Your task to perform on an android device: Search for seafood restaurants on Google Maps Image 0: 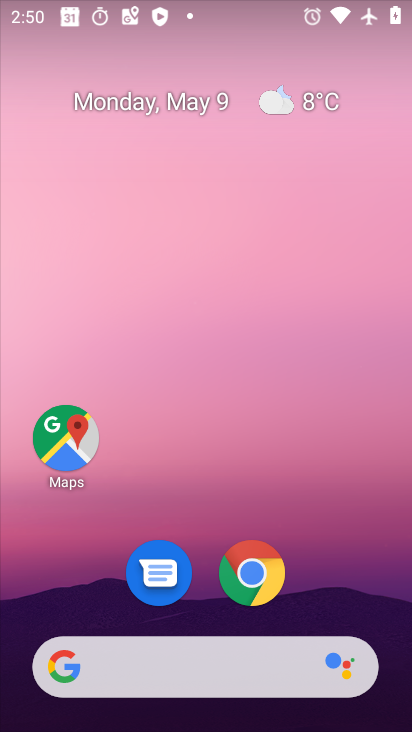
Step 0: click (61, 445)
Your task to perform on an android device: Search for seafood restaurants on Google Maps Image 1: 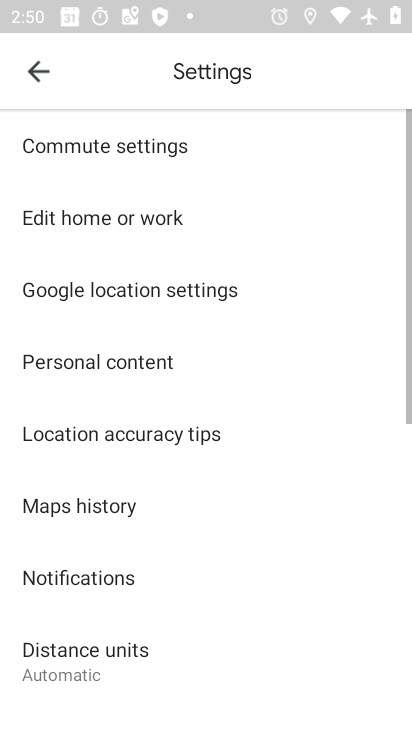
Step 1: click (38, 70)
Your task to perform on an android device: Search for seafood restaurants on Google Maps Image 2: 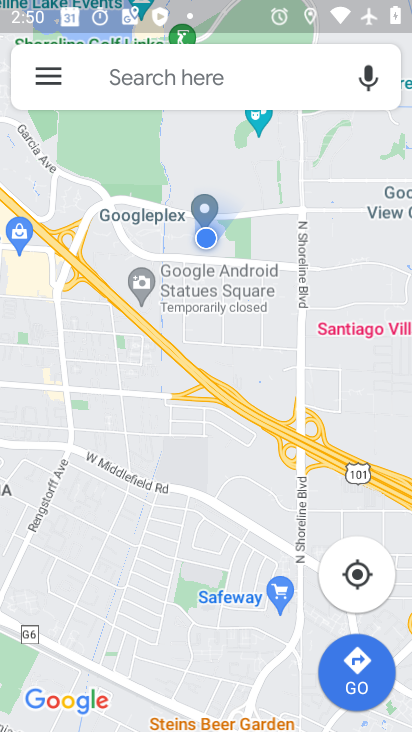
Step 2: click (151, 71)
Your task to perform on an android device: Search for seafood restaurants on Google Maps Image 3: 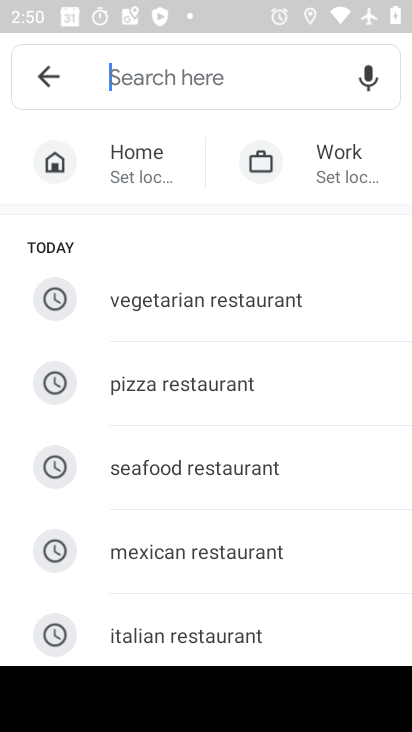
Step 3: click (193, 468)
Your task to perform on an android device: Search for seafood restaurants on Google Maps Image 4: 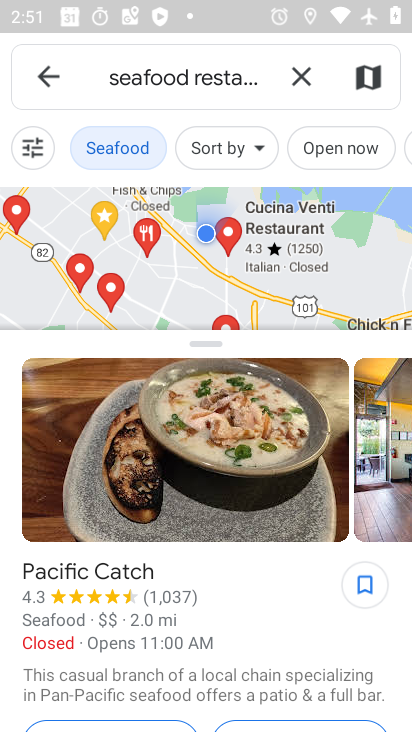
Step 4: task complete